Your task to perform on an android device: Play the last video I watched on Youtube Image 0: 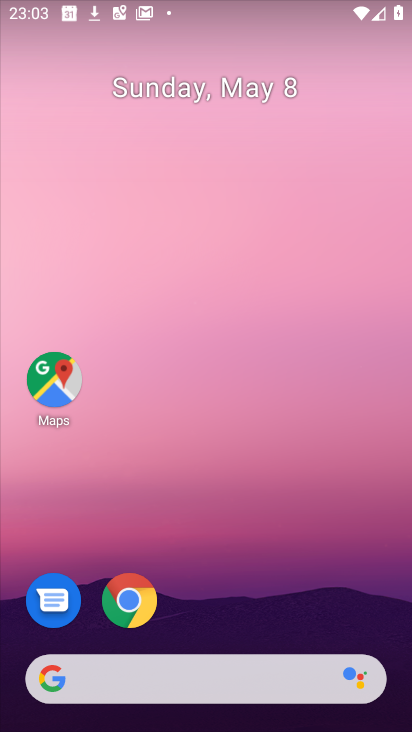
Step 0: drag from (295, 709) to (275, 434)
Your task to perform on an android device: Play the last video I watched on Youtube Image 1: 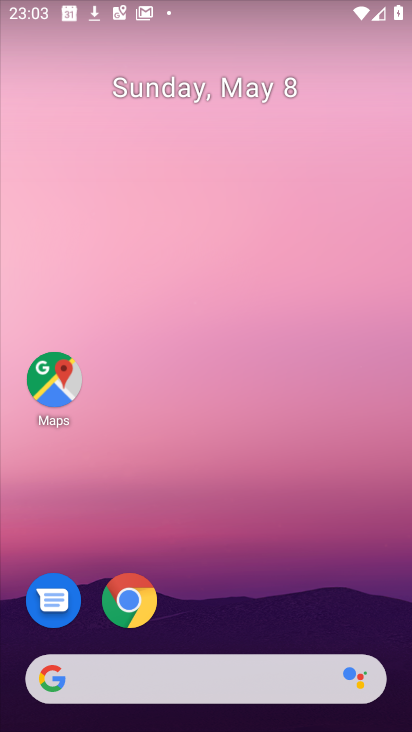
Step 1: drag from (284, 711) to (343, 263)
Your task to perform on an android device: Play the last video I watched on Youtube Image 2: 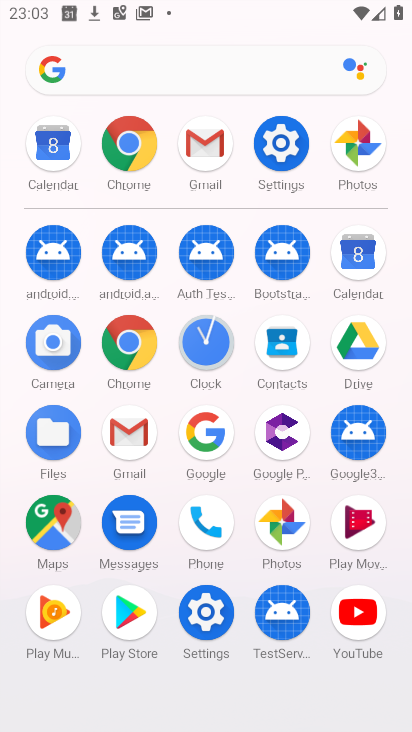
Step 2: click (351, 615)
Your task to perform on an android device: Play the last video I watched on Youtube Image 3: 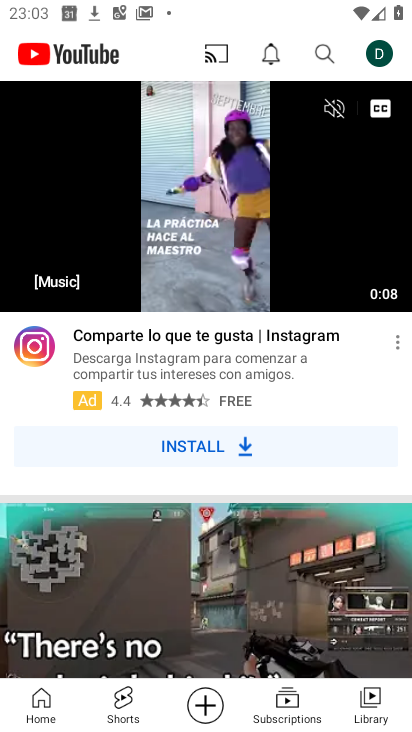
Step 3: click (374, 701)
Your task to perform on an android device: Play the last video I watched on Youtube Image 4: 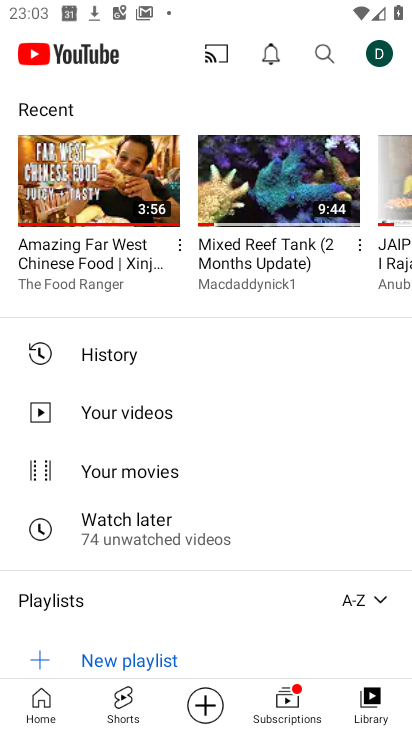
Step 4: click (115, 225)
Your task to perform on an android device: Play the last video I watched on Youtube Image 5: 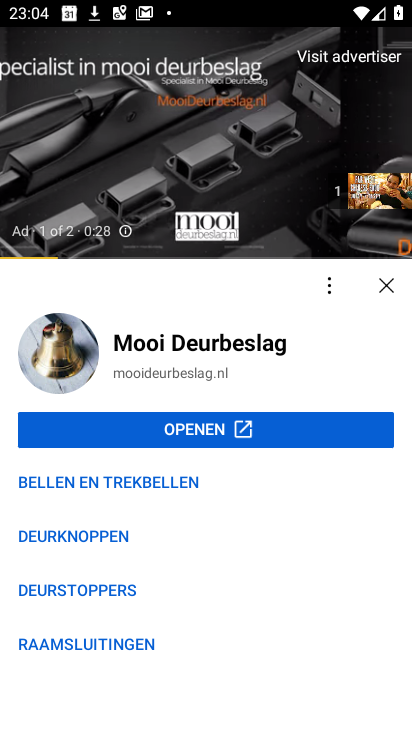
Step 5: click (377, 280)
Your task to perform on an android device: Play the last video I watched on Youtube Image 6: 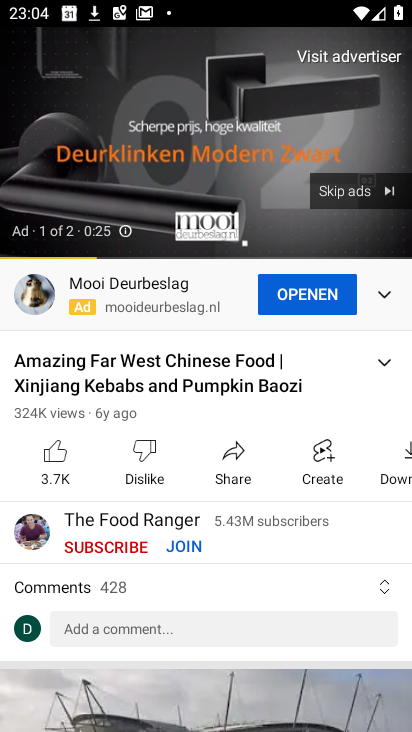
Step 6: click (364, 194)
Your task to perform on an android device: Play the last video I watched on Youtube Image 7: 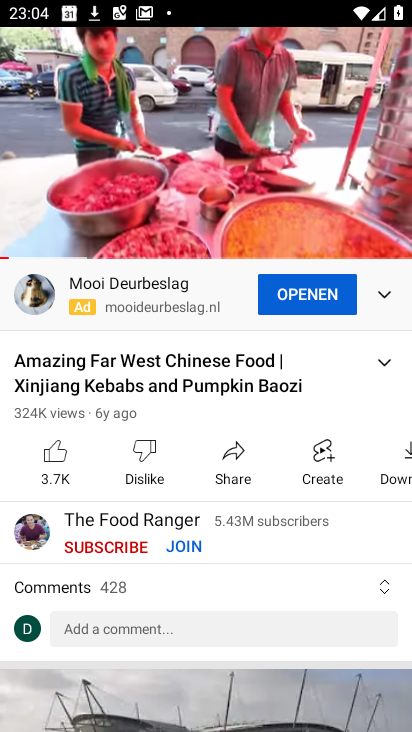
Step 7: task complete